Your task to perform on an android device: refresh tabs in the chrome app Image 0: 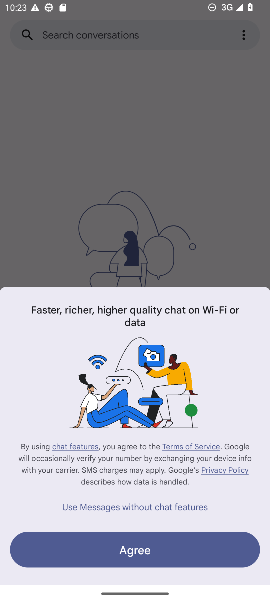
Step 0: press home button
Your task to perform on an android device: refresh tabs in the chrome app Image 1: 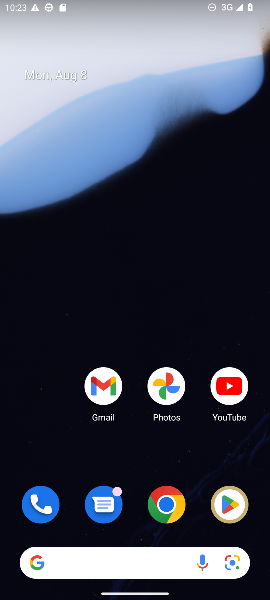
Step 1: click (164, 496)
Your task to perform on an android device: refresh tabs in the chrome app Image 2: 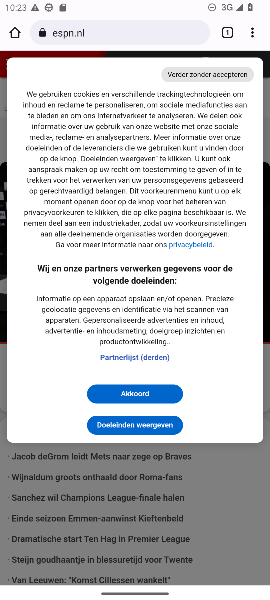
Step 2: click (250, 25)
Your task to perform on an android device: refresh tabs in the chrome app Image 3: 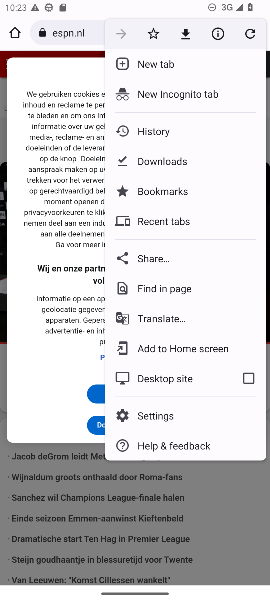
Step 3: click (251, 30)
Your task to perform on an android device: refresh tabs in the chrome app Image 4: 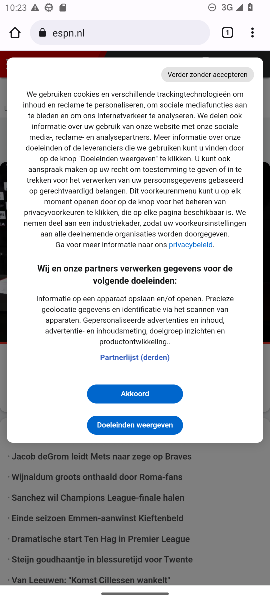
Step 4: task complete